Your task to perform on an android device: find photos in the google photos app Image 0: 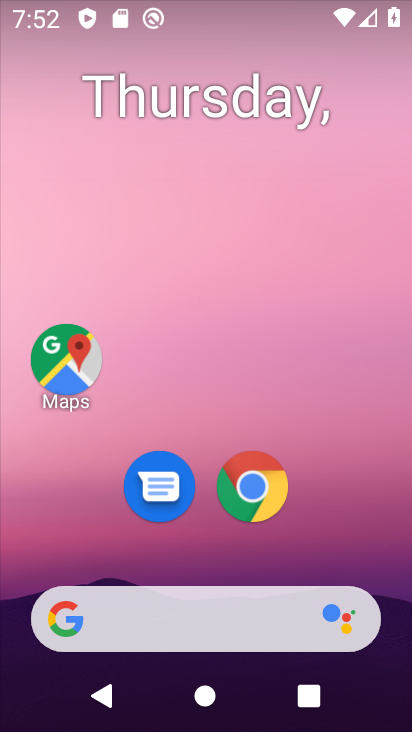
Step 0: drag from (249, 630) to (231, 143)
Your task to perform on an android device: find photos in the google photos app Image 1: 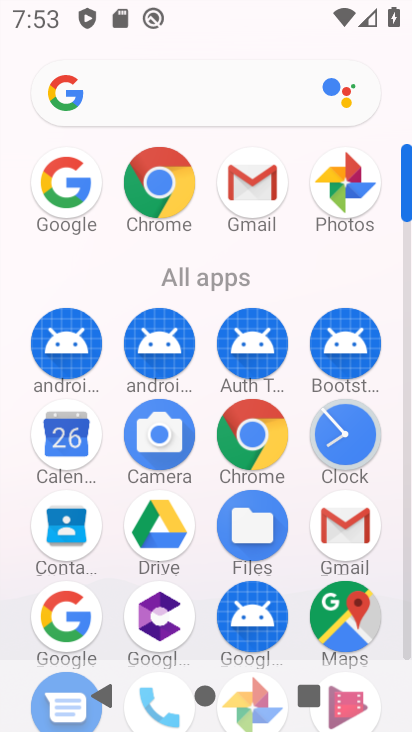
Step 1: drag from (266, 459) to (298, 115)
Your task to perform on an android device: find photos in the google photos app Image 2: 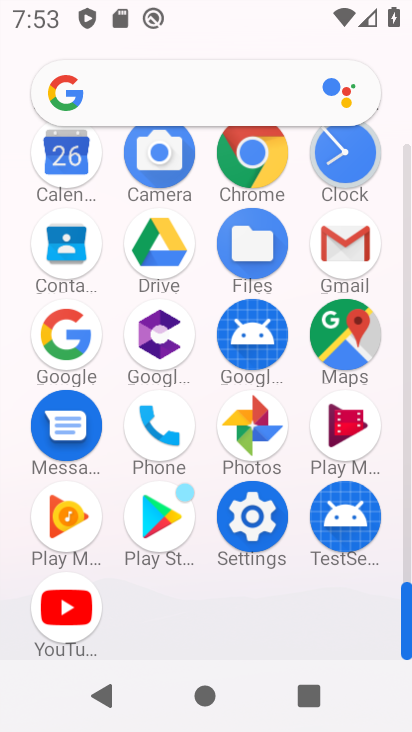
Step 2: click (261, 444)
Your task to perform on an android device: find photos in the google photos app Image 3: 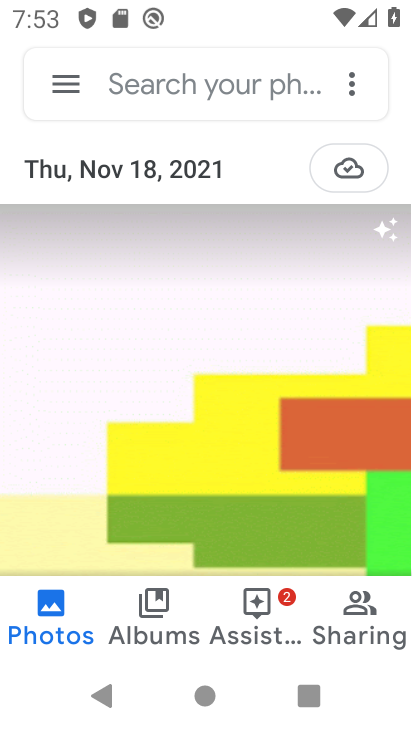
Step 3: task complete